Your task to perform on an android device: check battery use Image 0: 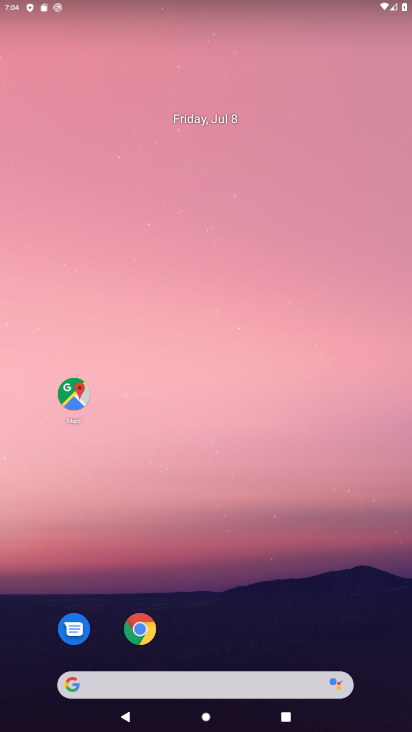
Step 0: press home button
Your task to perform on an android device: check battery use Image 1: 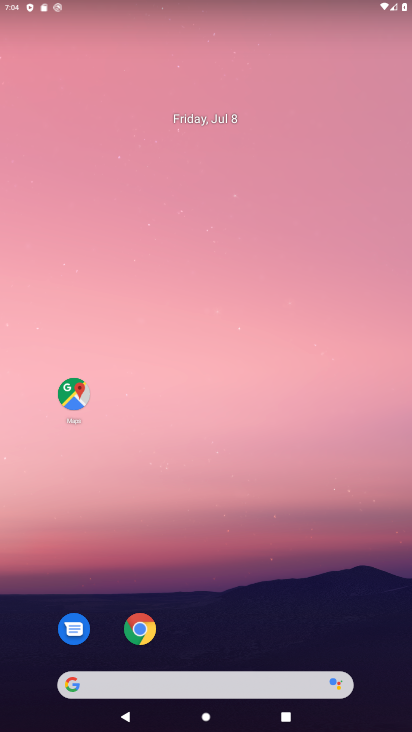
Step 1: press home button
Your task to perform on an android device: check battery use Image 2: 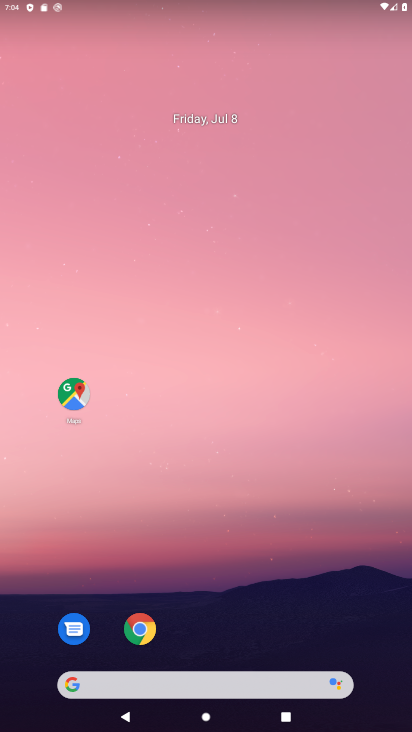
Step 2: drag from (317, 605) to (128, 2)
Your task to perform on an android device: check battery use Image 3: 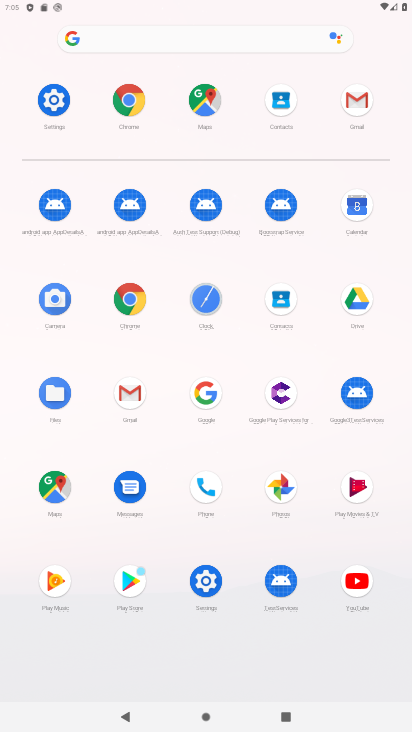
Step 3: click (216, 593)
Your task to perform on an android device: check battery use Image 4: 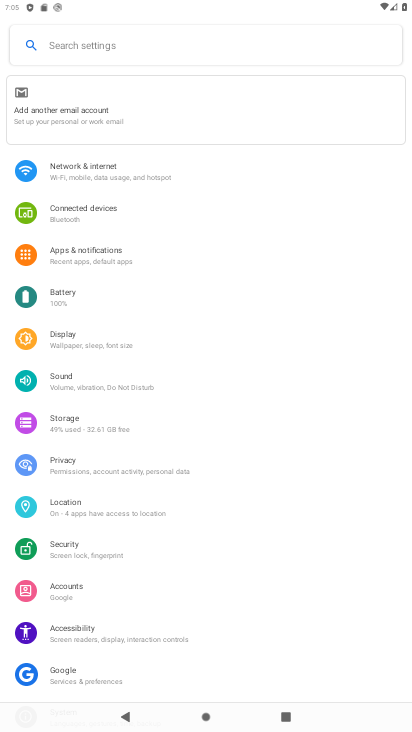
Step 4: click (25, 298)
Your task to perform on an android device: check battery use Image 5: 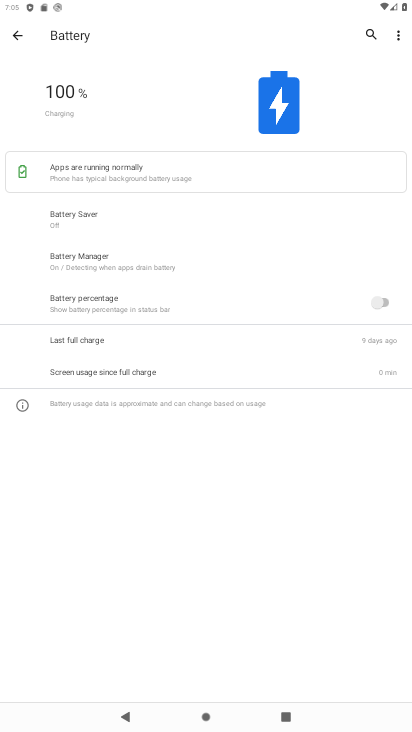
Step 5: task complete